Your task to perform on an android device: toggle sleep mode Image 0: 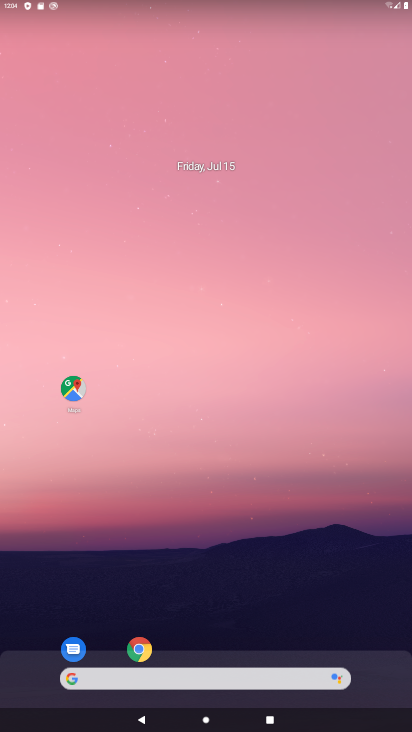
Step 0: drag from (194, 567) to (194, 41)
Your task to perform on an android device: toggle sleep mode Image 1: 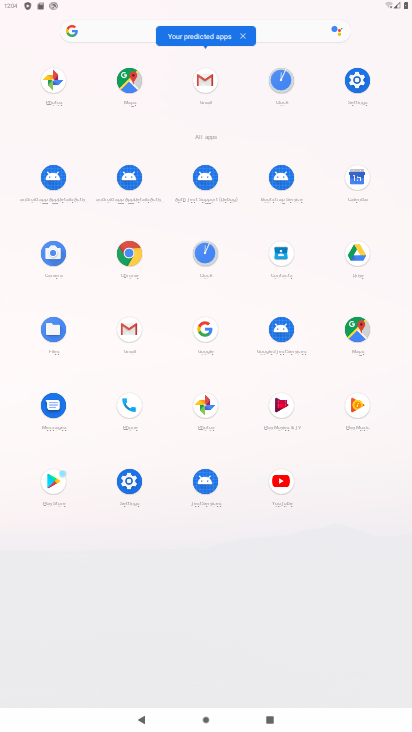
Step 1: click (130, 493)
Your task to perform on an android device: toggle sleep mode Image 2: 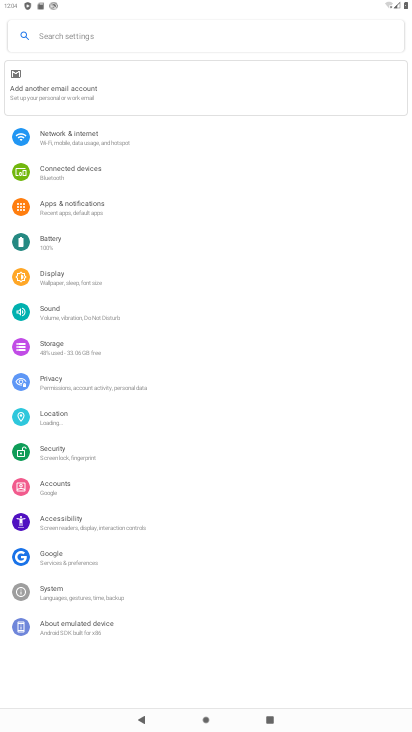
Step 2: click (171, 35)
Your task to perform on an android device: toggle sleep mode Image 3: 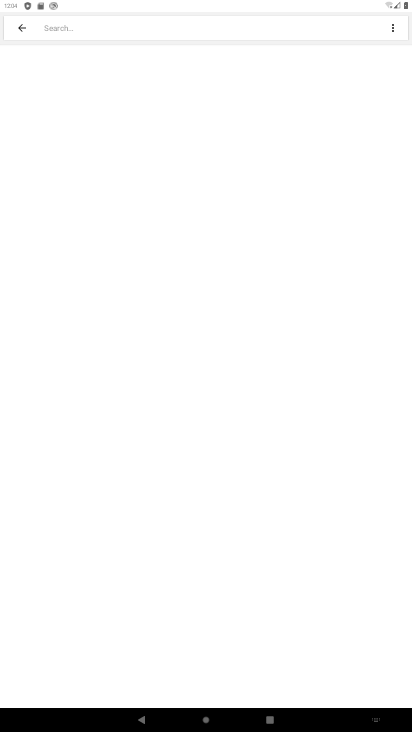
Step 3: type "sleep mode"
Your task to perform on an android device: toggle sleep mode Image 4: 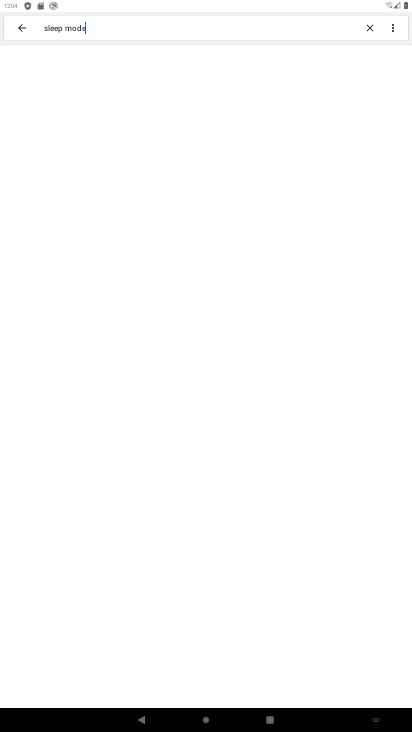
Step 4: task complete